Your task to perform on an android device: turn off notifications settings in the gmail app Image 0: 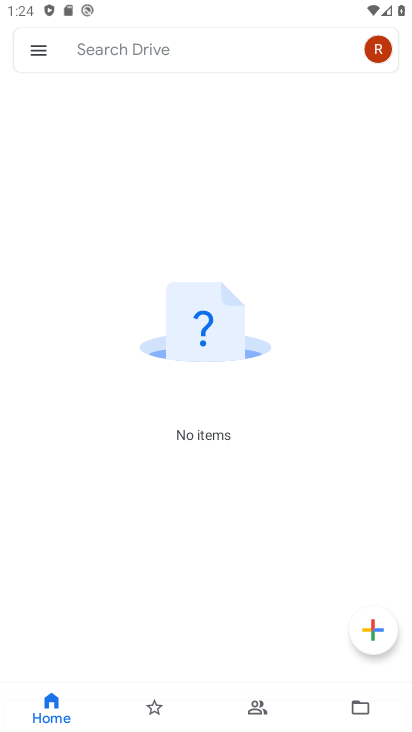
Step 0: press home button
Your task to perform on an android device: turn off notifications settings in the gmail app Image 1: 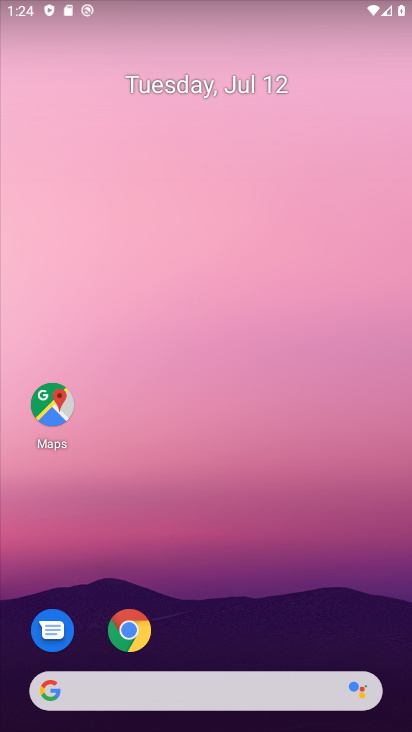
Step 1: drag from (358, 556) to (329, 101)
Your task to perform on an android device: turn off notifications settings in the gmail app Image 2: 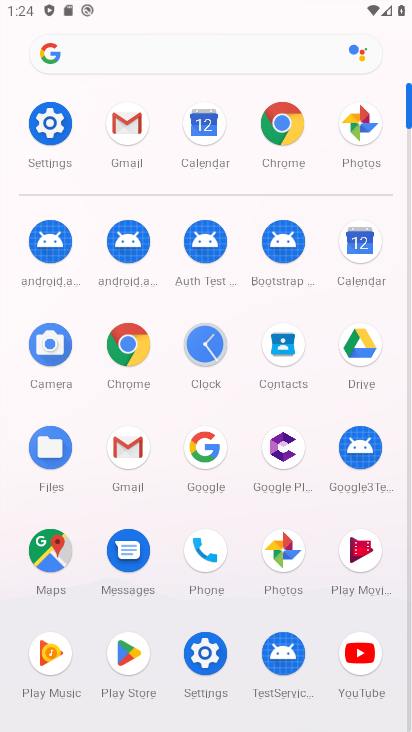
Step 2: click (125, 442)
Your task to perform on an android device: turn off notifications settings in the gmail app Image 3: 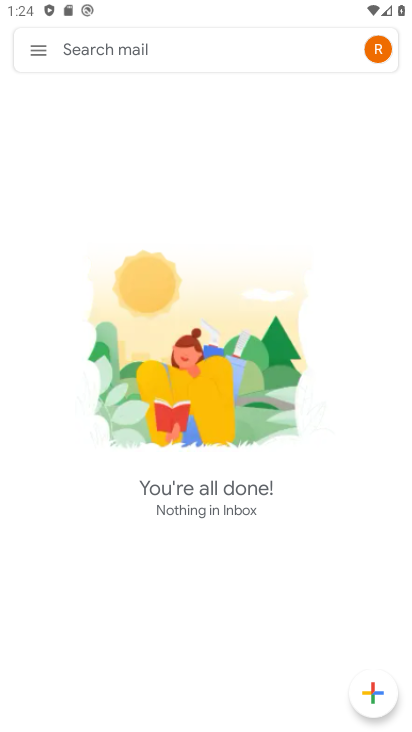
Step 3: click (34, 51)
Your task to perform on an android device: turn off notifications settings in the gmail app Image 4: 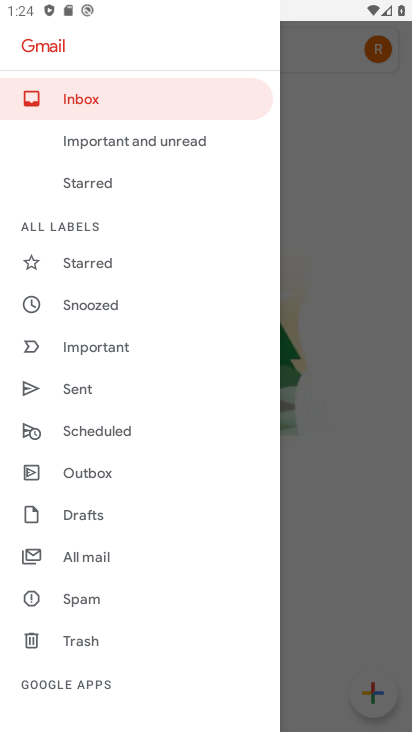
Step 4: drag from (133, 662) to (157, 303)
Your task to perform on an android device: turn off notifications settings in the gmail app Image 5: 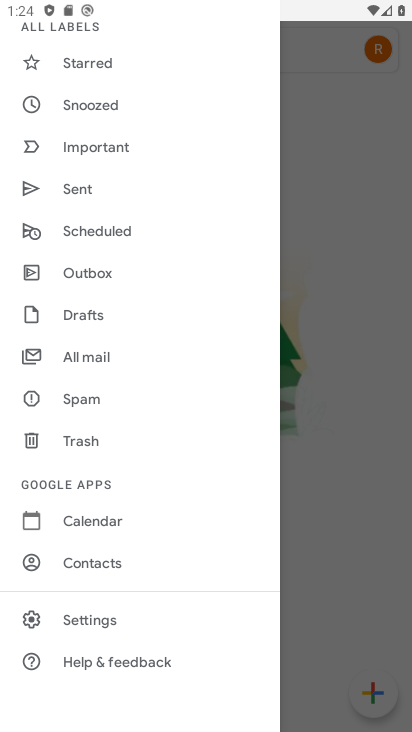
Step 5: click (85, 619)
Your task to perform on an android device: turn off notifications settings in the gmail app Image 6: 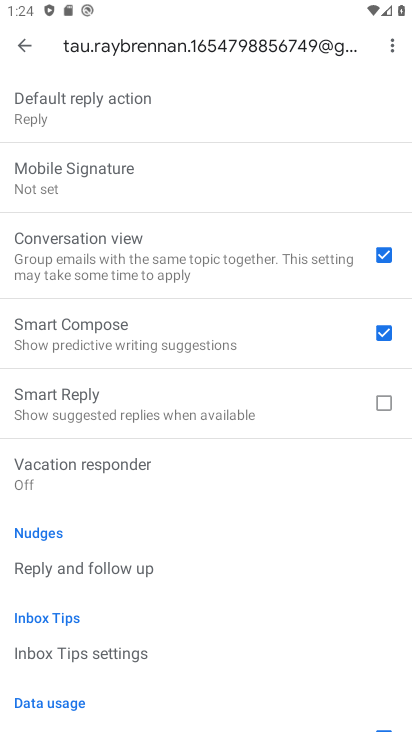
Step 6: drag from (251, 209) to (253, 539)
Your task to perform on an android device: turn off notifications settings in the gmail app Image 7: 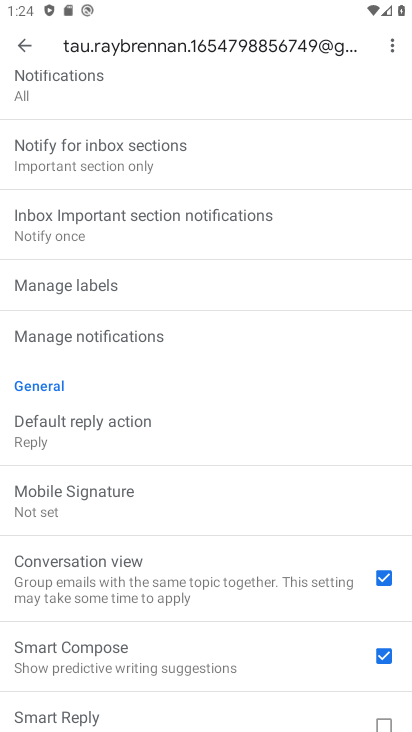
Step 7: drag from (285, 163) to (281, 285)
Your task to perform on an android device: turn off notifications settings in the gmail app Image 8: 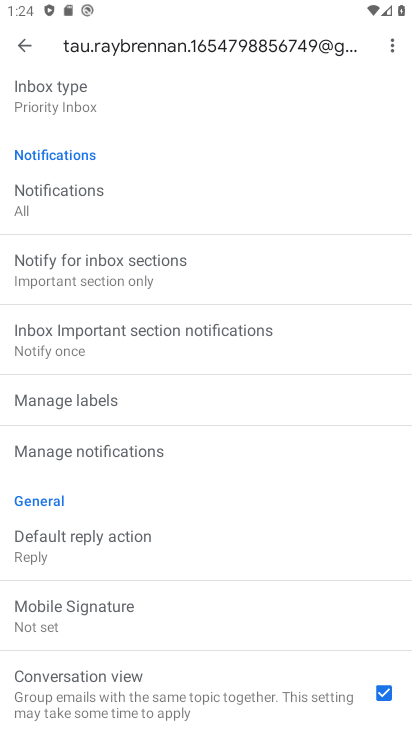
Step 8: click (100, 440)
Your task to perform on an android device: turn off notifications settings in the gmail app Image 9: 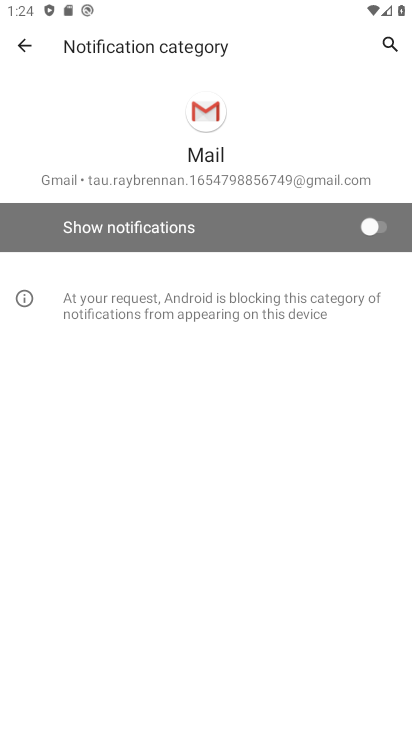
Step 9: task complete